Your task to perform on an android device: Open Google Chrome Image 0: 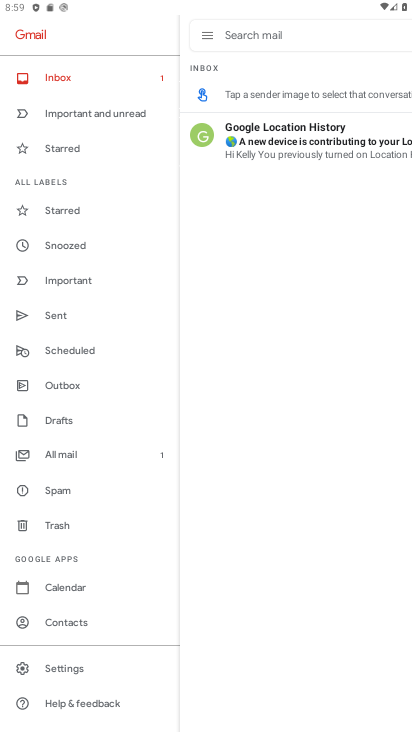
Step 0: press home button
Your task to perform on an android device: Open Google Chrome Image 1: 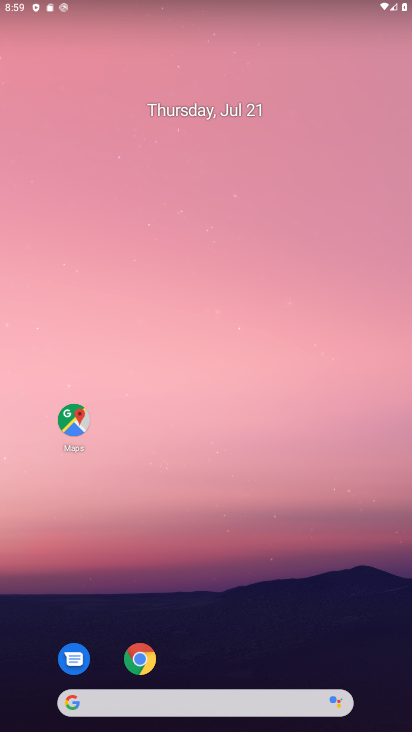
Step 1: click (136, 652)
Your task to perform on an android device: Open Google Chrome Image 2: 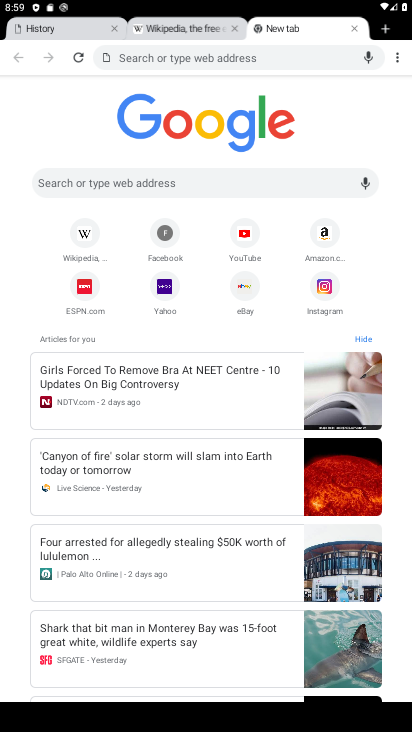
Step 2: task complete